Your task to perform on an android device: open app "ZOOM Cloud Meetings" Image 0: 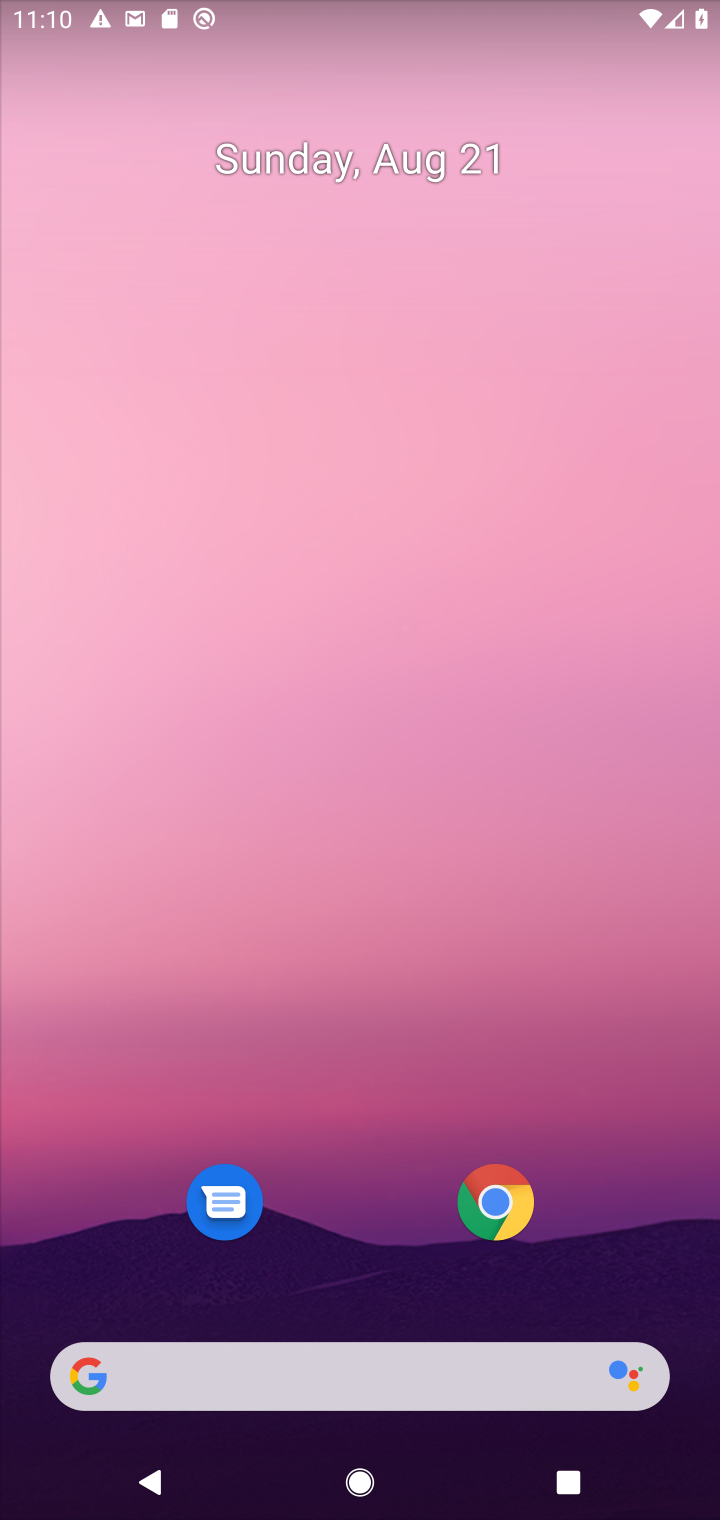
Step 0: drag from (342, 600) to (331, 140)
Your task to perform on an android device: open app "ZOOM Cloud Meetings" Image 1: 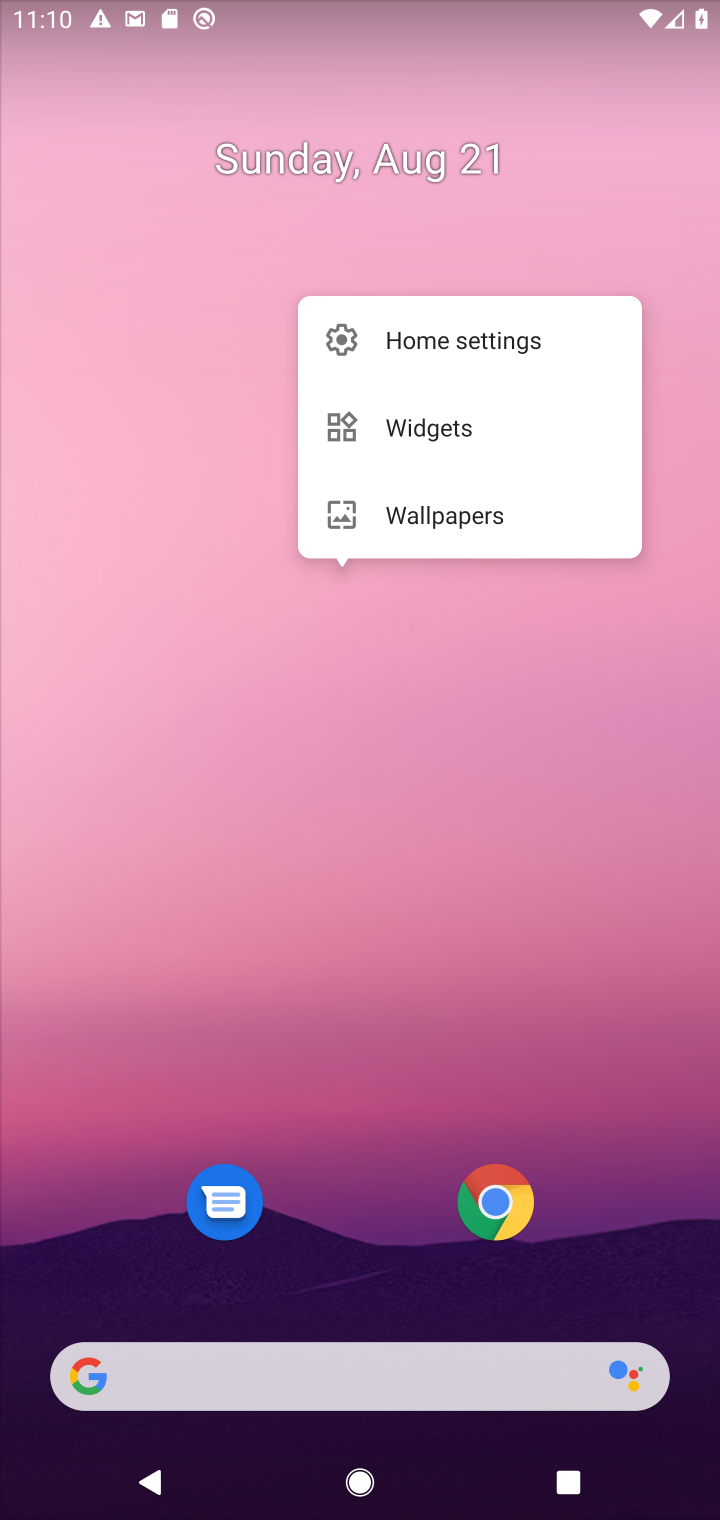
Step 1: click (525, 711)
Your task to perform on an android device: open app "ZOOM Cloud Meetings" Image 2: 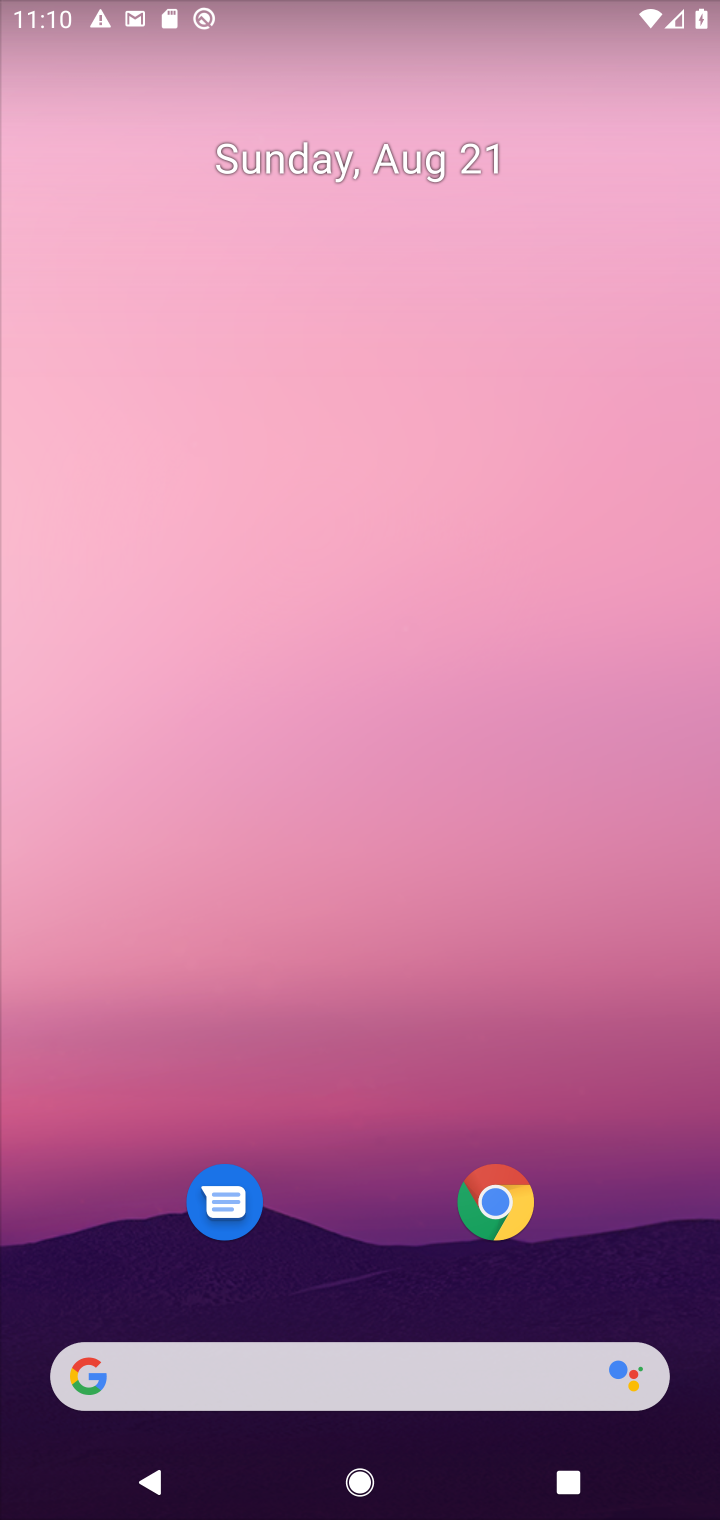
Step 2: drag from (380, 554) to (380, 176)
Your task to perform on an android device: open app "ZOOM Cloud Meetings" Image 3: 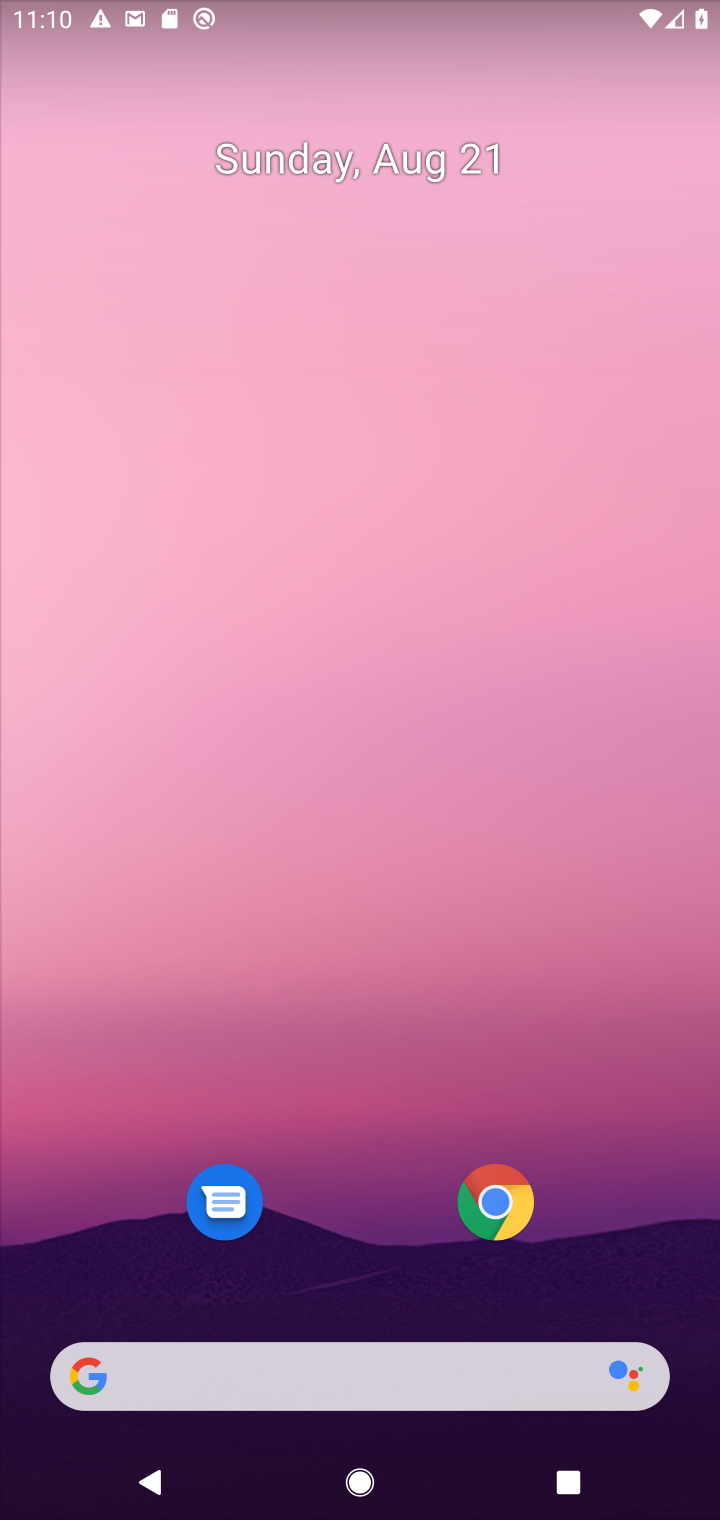
Step 3: drag from (348, 274) to (348, 88)
Your task to perform on an android device: open app "ZOOM Cloud Meetings" Image 4: 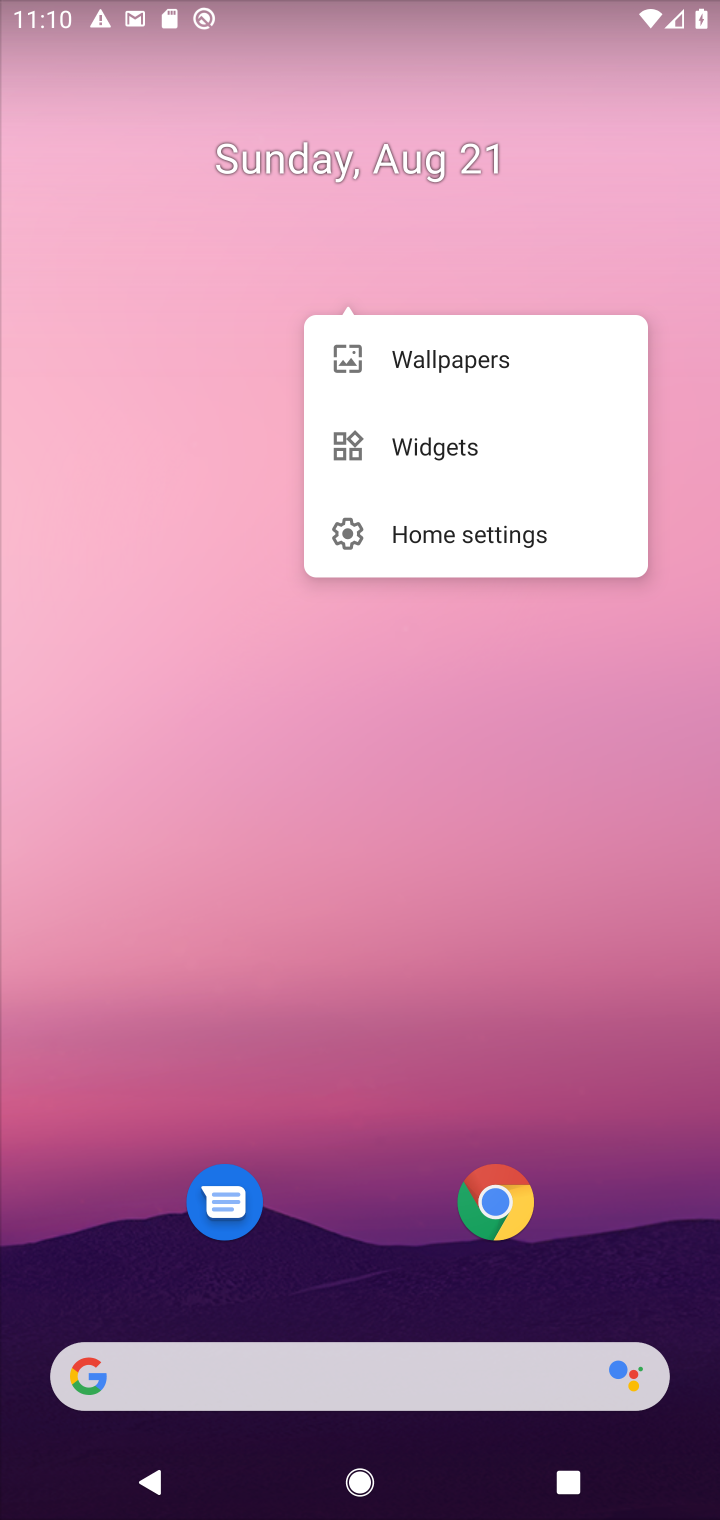
Step 4: click (398, 757)
Your task to perform on an android device: open app "ZOOM Cloud Meetings" Image 5: 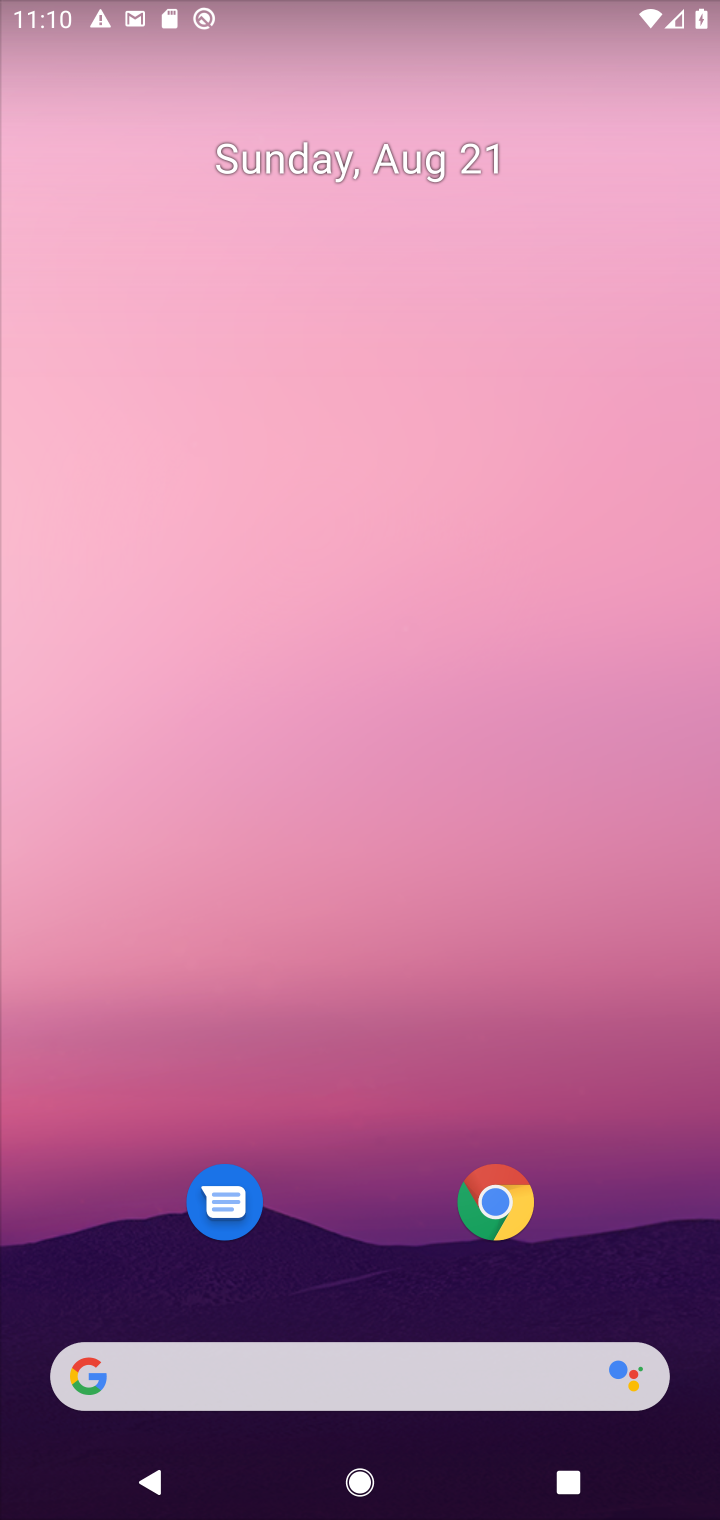
Step 5: drag from (334, 961) to (244, 90)
Your task to perform on an android device: open app "ZOOM Cloud Meetings" Image 6: 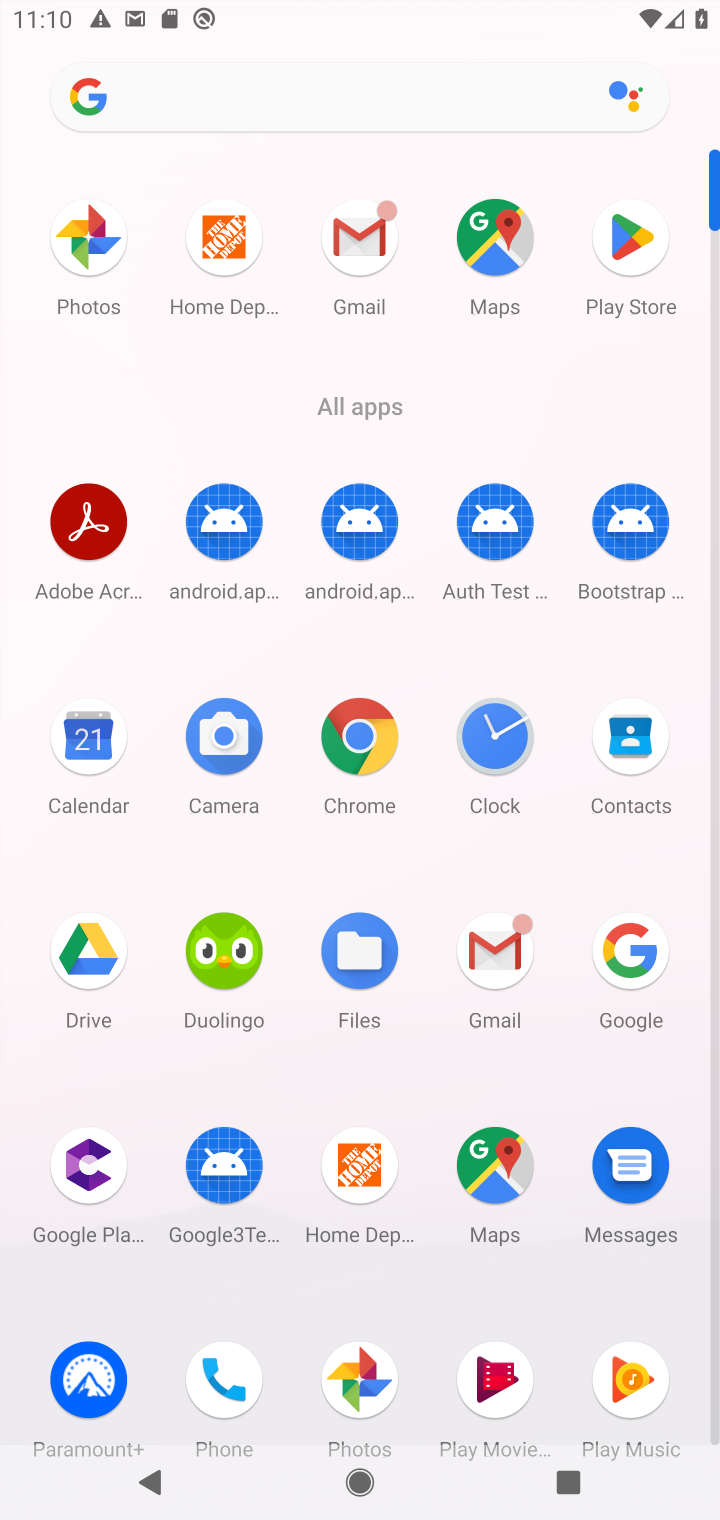
Step 6: click (634, 237)
Your task to perform on an android device: open app "ZOOM Cloud Meetings" Image 7: 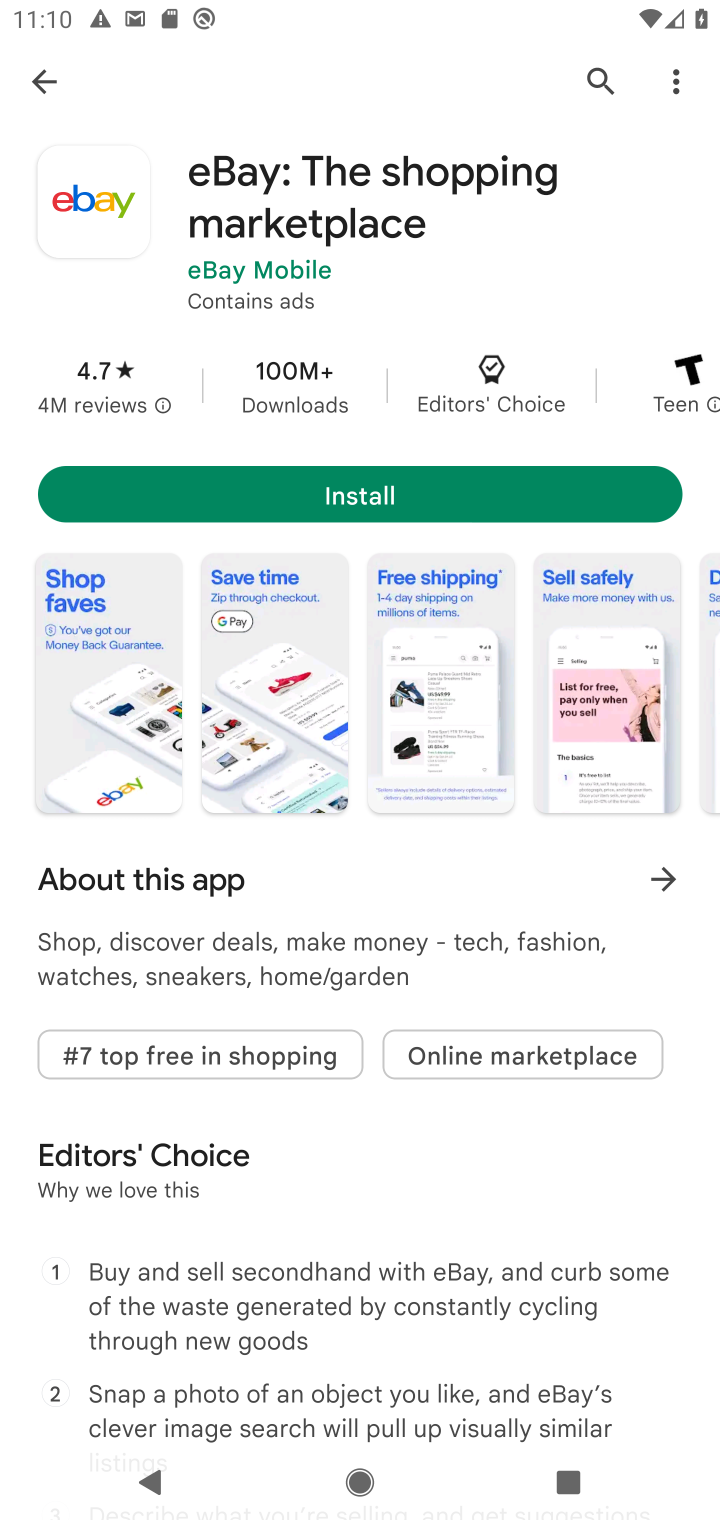
Step 7: click (602, 67)
Your task to perform on an android device: open app "ZOOM Cloud Meetings" Image 8: 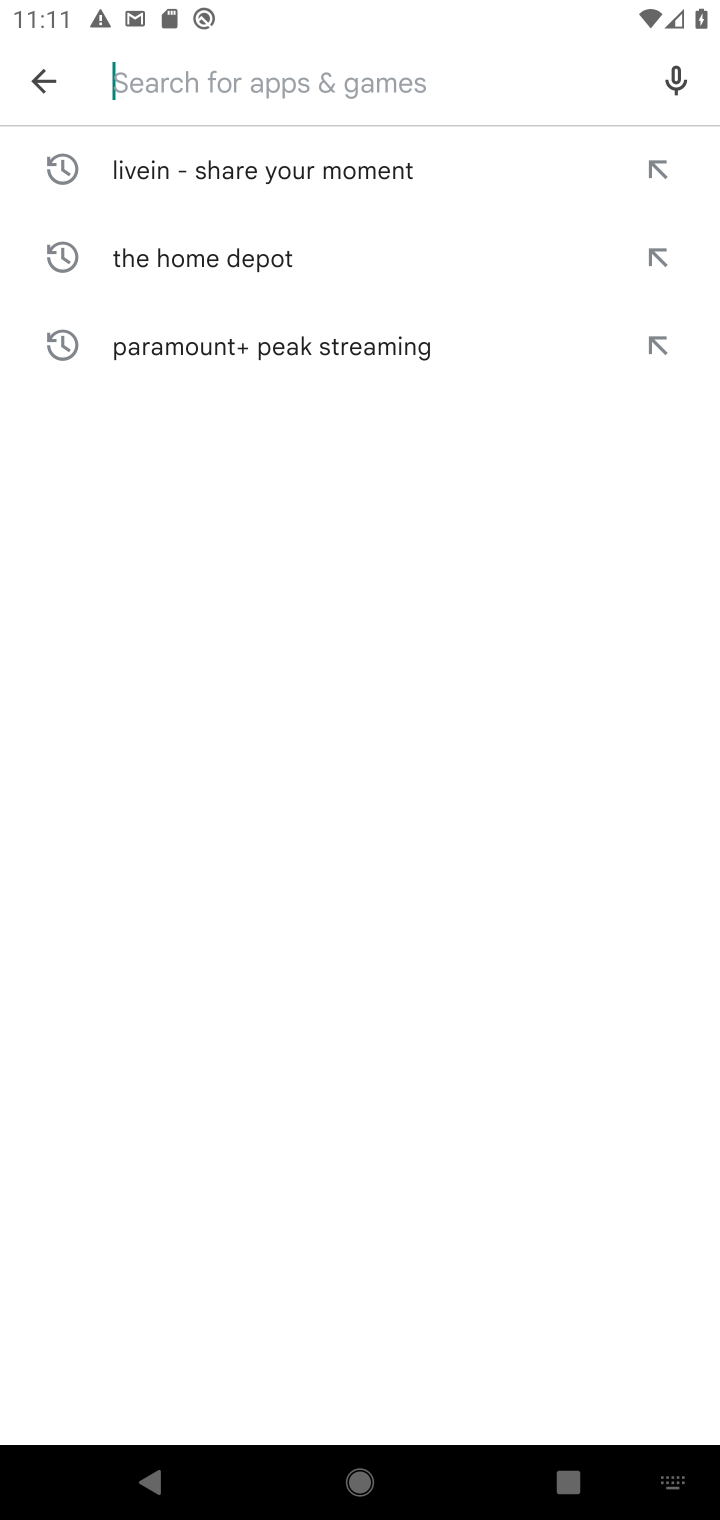
Step 8: type "ZOOM Cloud Meetings"
Your task to perform on an android device: open app "ZOOM Cloud Meetings" Image 9: 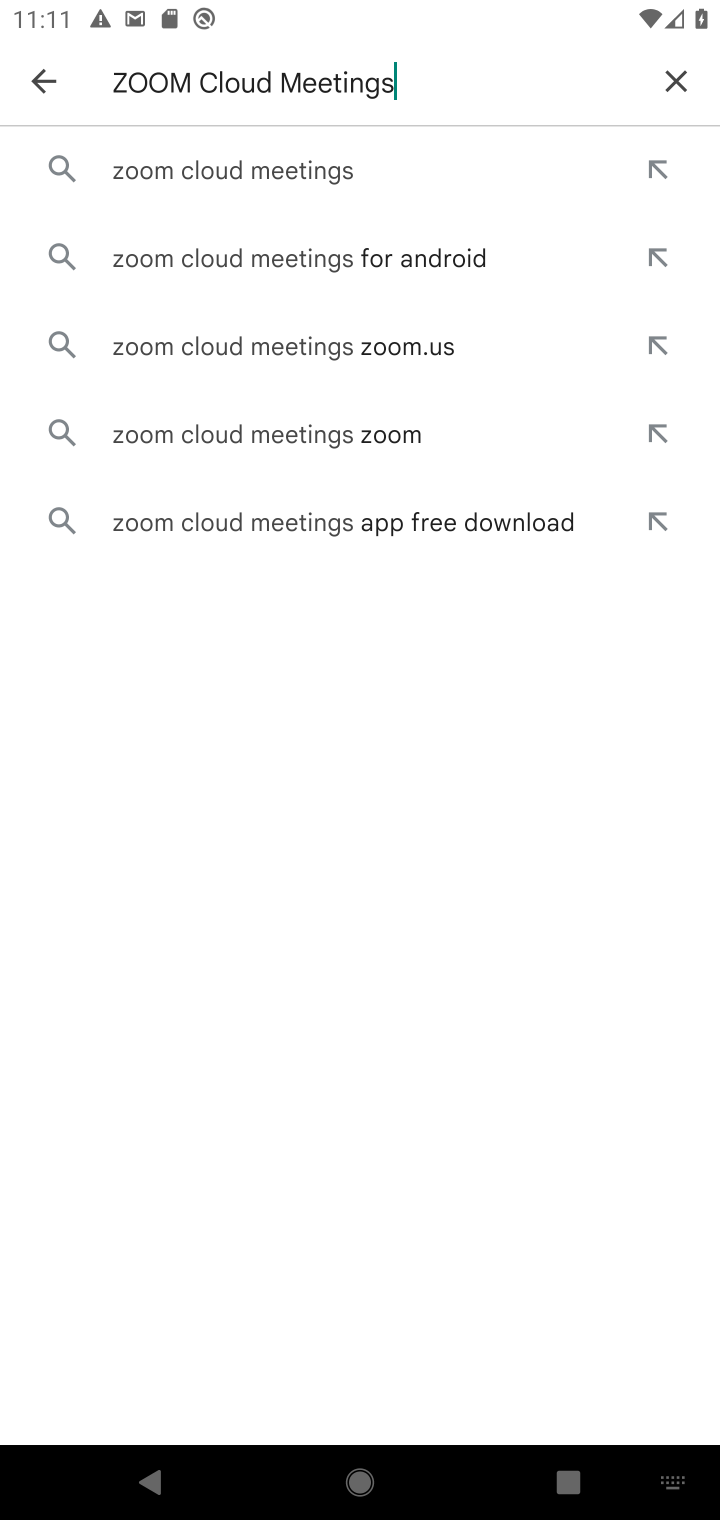
Step 9: click (229, 167)
Your task to perform on an android device: open app "ZOOM Cloud Meetings" Image 10: 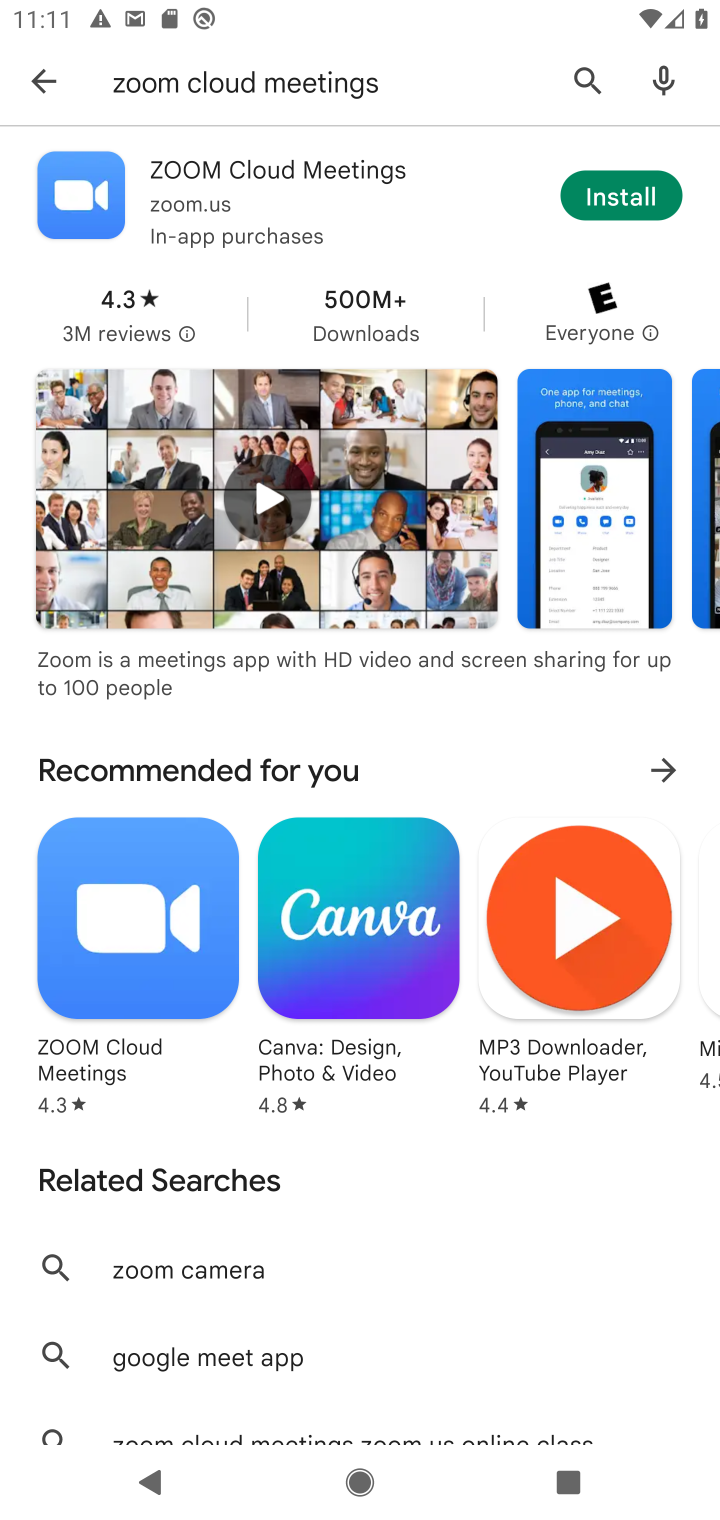
Step 10: task complete